Your task to perform on an android device: What is the recent news? Image 0: 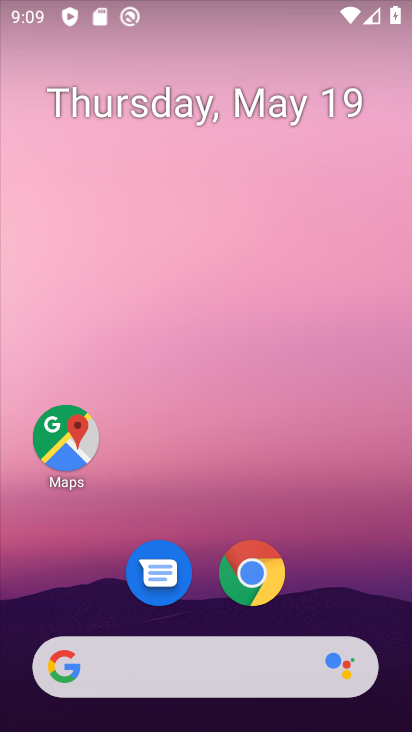
Step 0: drag from (192, 622) to (196, 312)
Your task to perform on an android device: What is the recent news? Image 1: 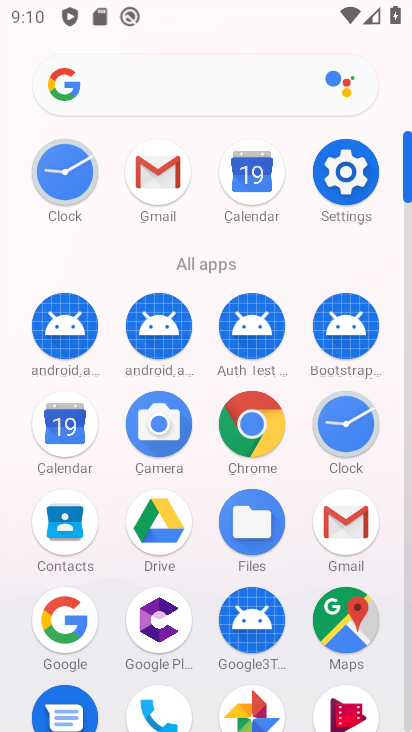
Step 1: click (54, 609)
Your task to perform on an android device: What is the recent news? Image 2: 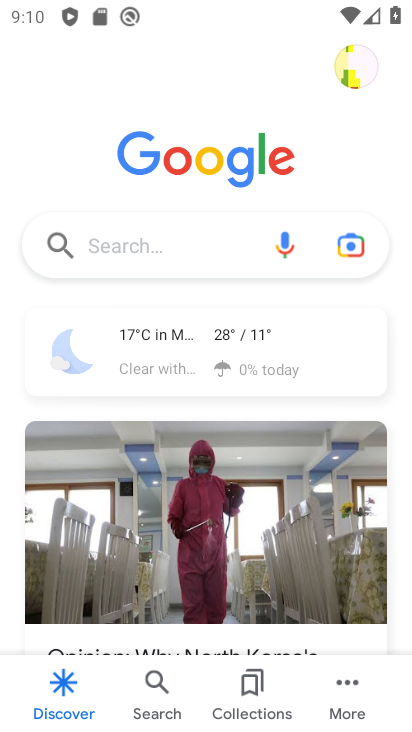
Step 2: click (138, 250)
Your task to perform on an android device: What is the recent news? Image 3: 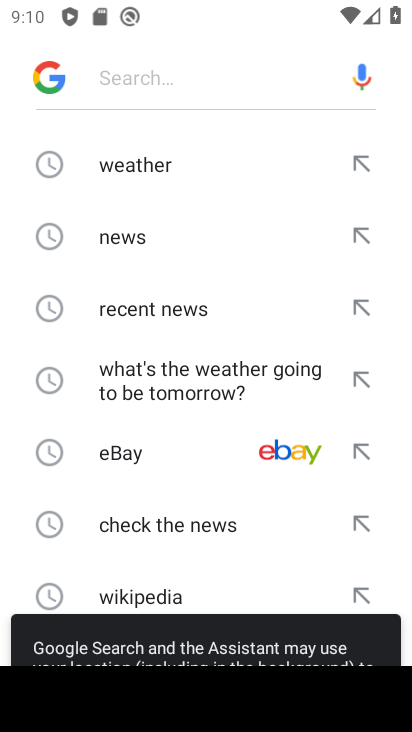
Step 3: click (155, 246)
Your task to perform on an android device: What is the recent news? Image 4: 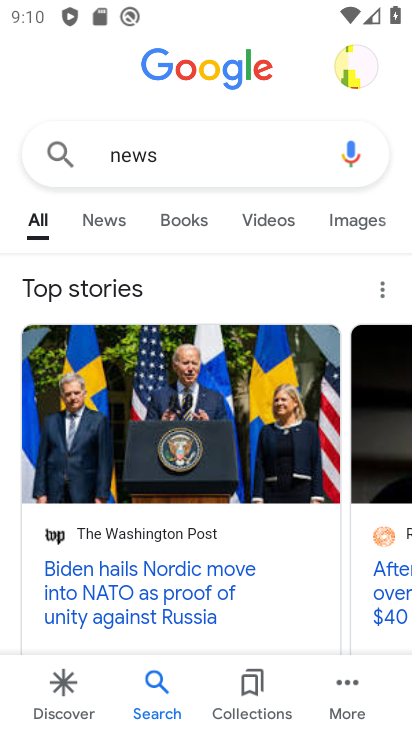
Step 4: click (101, 216)
Your task to perform on an android device: What is the recent news? Image 5: 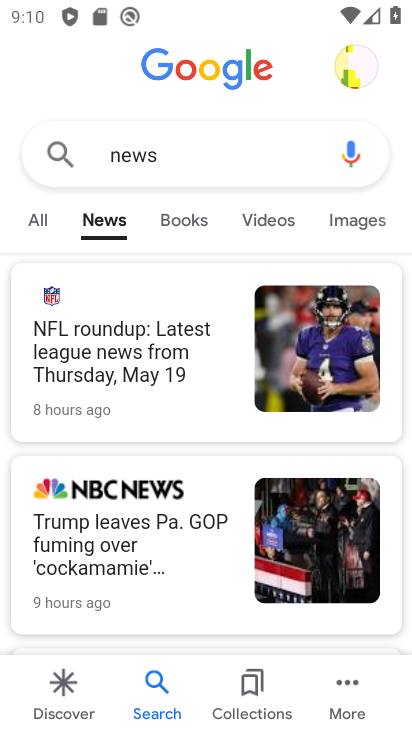
Step 5: task complete